Your task to perform on an android device: Search for Mexican restaurants on Maps Image 0: 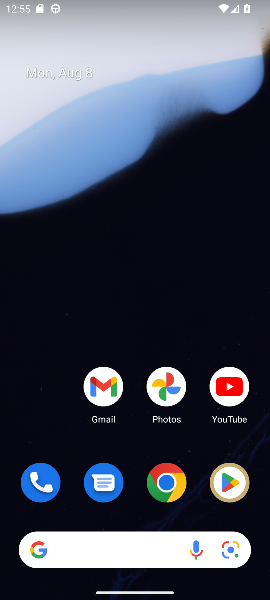
Step 0: drag from (161, 551) to (205, 9)
Your task to perform on an android device: Search for Mexican restaurants on Maps Image 1: 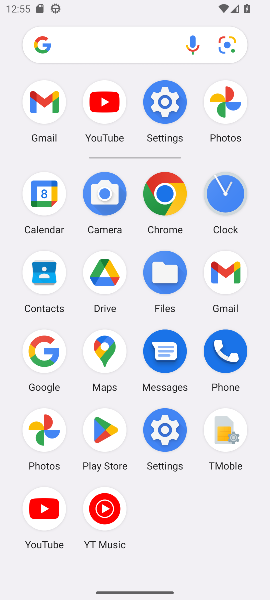
Step 1: click (93, 356)
Your task to perform on an android device: Search for Mexican restaurants on Maps Image 2: 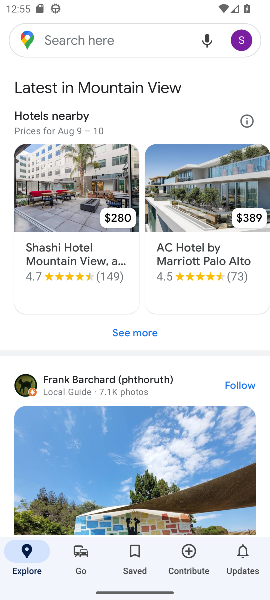
Step 2: click (145, 32)
Your task to perform on an android device: Search for Mexican restaurants on Maps Image 3: 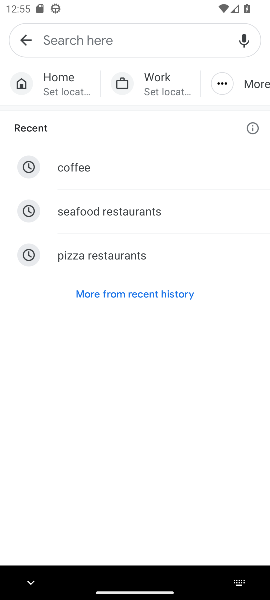
Step 3: click (166, 295)
Your task to perform on an android device: Search for Mexican restaurants on Maps Image 4: 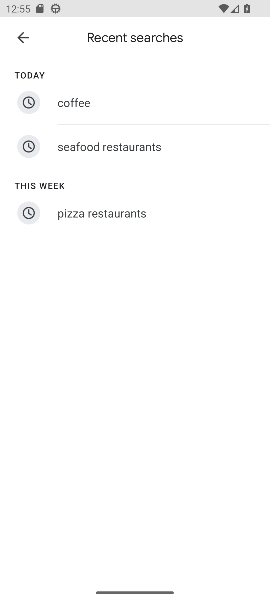
Step 4: press back button
Your task to perform on an android device: Search for Mexican restaurants on Maps Image 5: 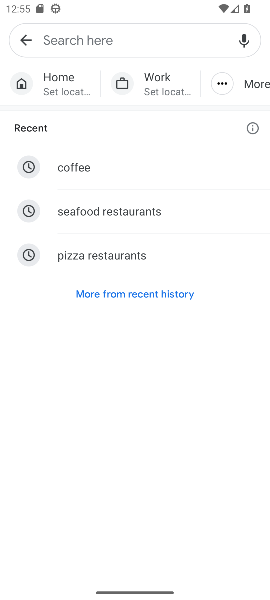
Step 5: click (80, 32)
Your task to perform on an android device: Search for Mexican restaurants on Maps Image 6: 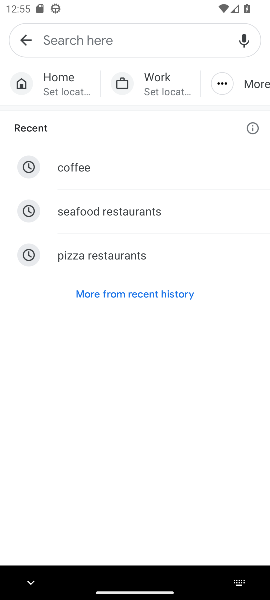
Step 6: type "mexican restaurant"
Your task to perform on an android device: Search for Mexican restaurants on Maps Image 7: 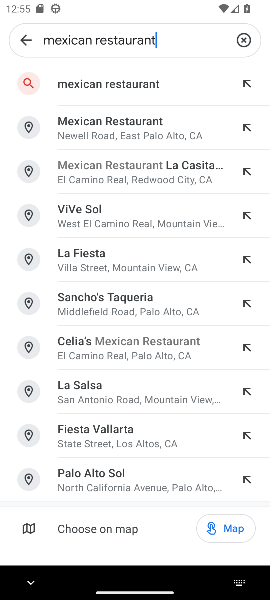
Step 7: click (159, 93)
Your task to perform on an android device: Search for Mexican restaurants on Maps Image 8: 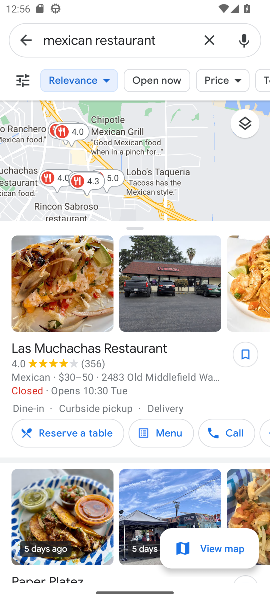
Step 8: task complete